Your task to perform on an android device: Go to internet settings Image 0: 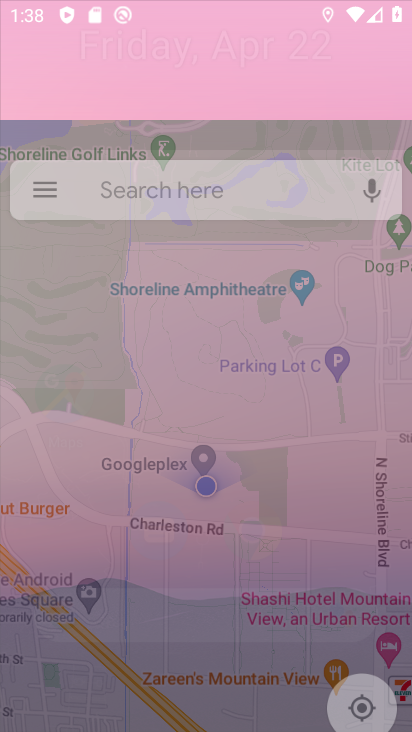
Step 0: drag from (228, 525) to (245, 156)
Your task to perform on an android device: Go to internet settings Image 1: 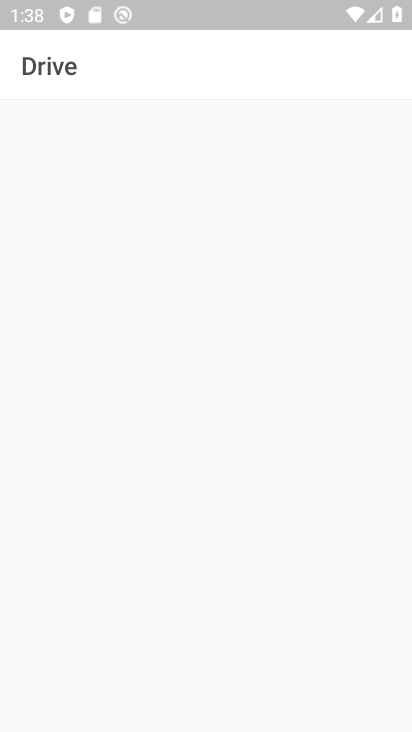
Step 1: press home button
Your task to perform on an android device: Go to internet settings Image 2: 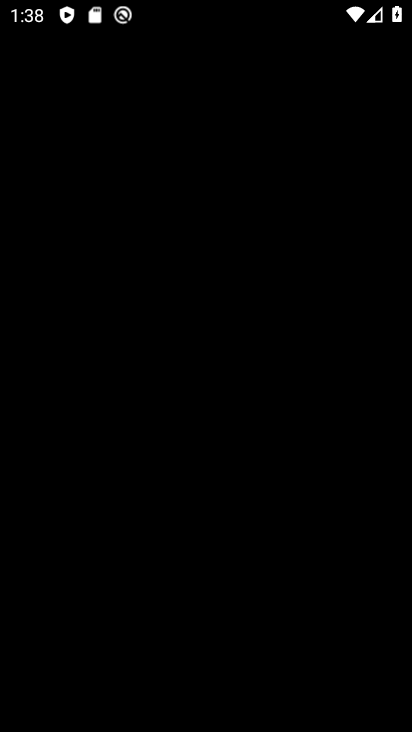
Step 2: press home button
Your task to perform on an android device: Go to internet settings Image 3: 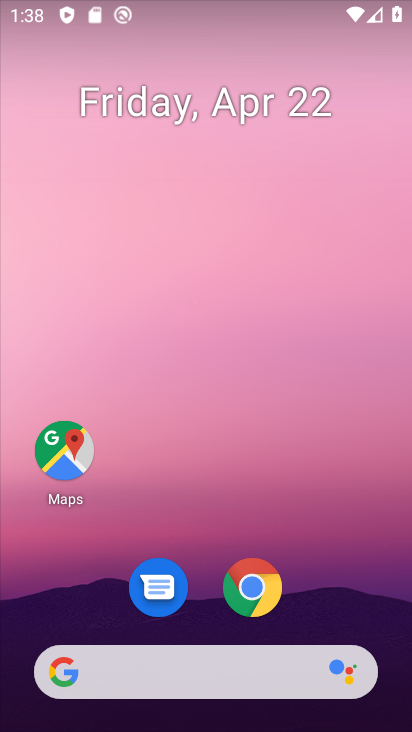
Step 3: drag from (222, 634) to (199, 198)
Your task to perform on an android device: Go to internet settings Image 4: 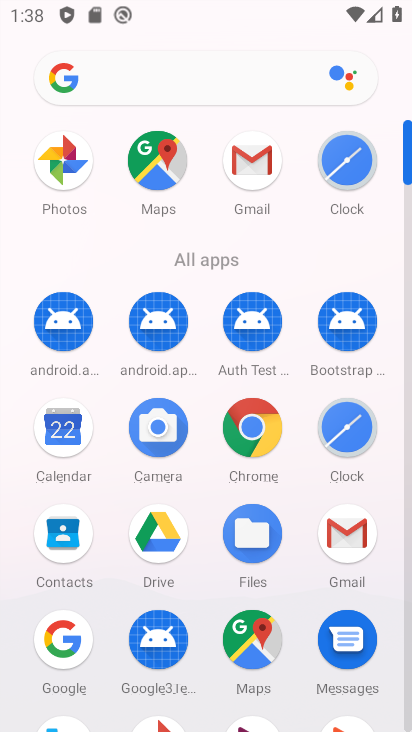
Step 4: drag from (205, 669) to (241, 298)
Your task to perform on an android device: Go to internet settings Image 5: 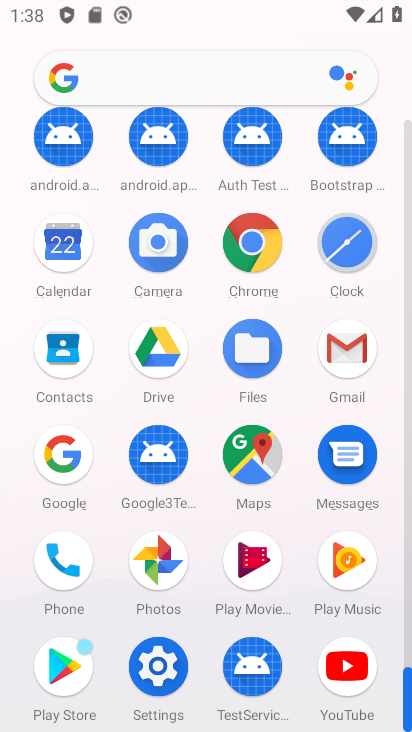
Step 5: click (162, 655)
Your task to perform on an android device: Go to internet settings Image 6: 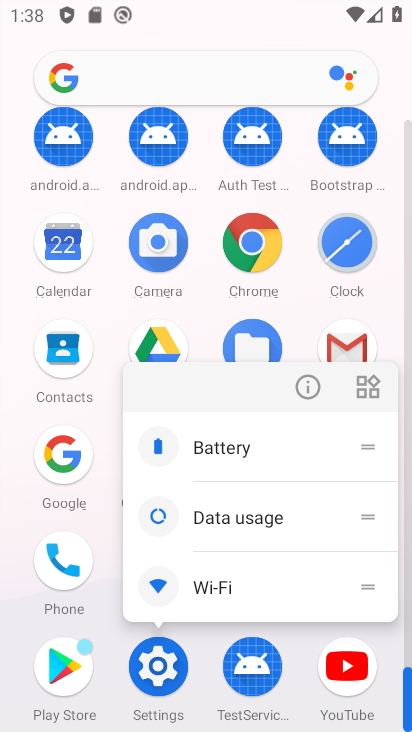
Step 6: click (307, 381)
Your task to perform on an android device: Go to internet settings Image 7: 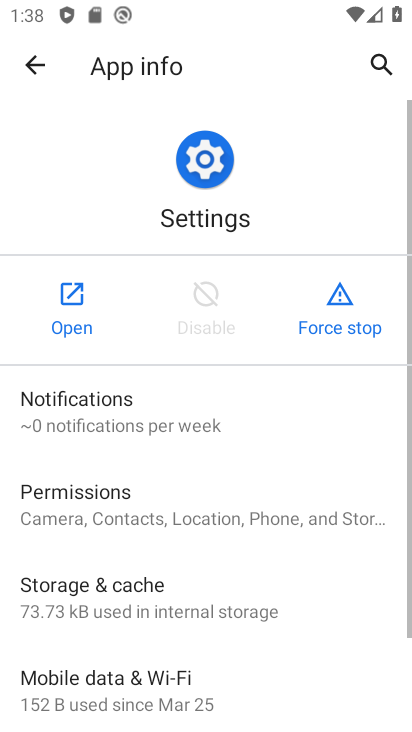
Step 7: click (69, 301)
Your task to perform on an android device: Go to internet settings Image 8: 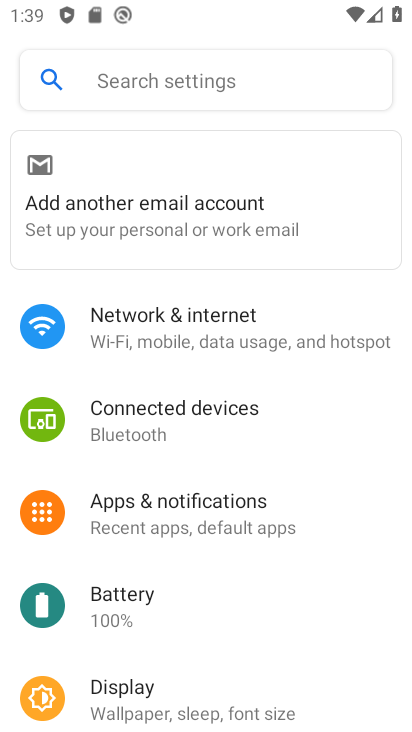
Step 8: drag from (196, 682) to (325, 149)
Your task to perform on an android device: Go to internet settings Image 9: 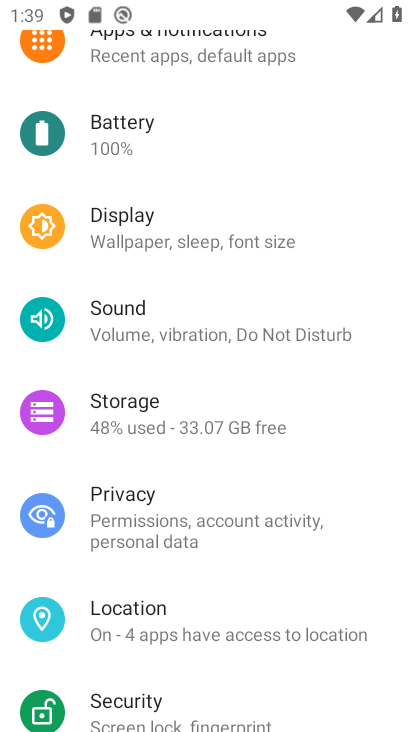
Step 9: drag from (224, 642) to (320, 211)
Your task to perform on an android device: Go to internet settings Image 10: 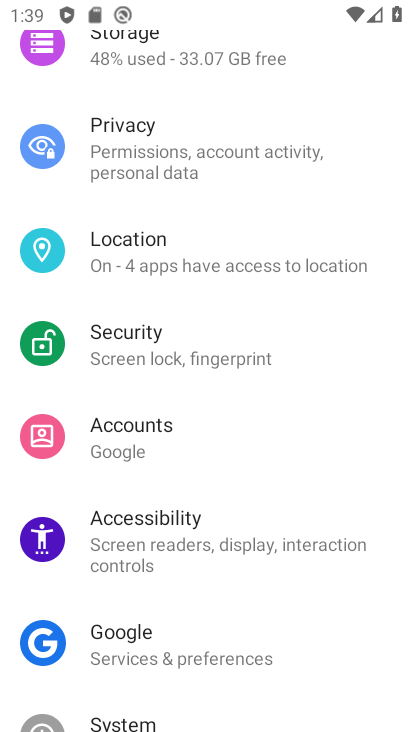
Step 10: drag from (189, 571) to (189, 228)
Your task to perform on an android device: Go to internet settings Image 11: 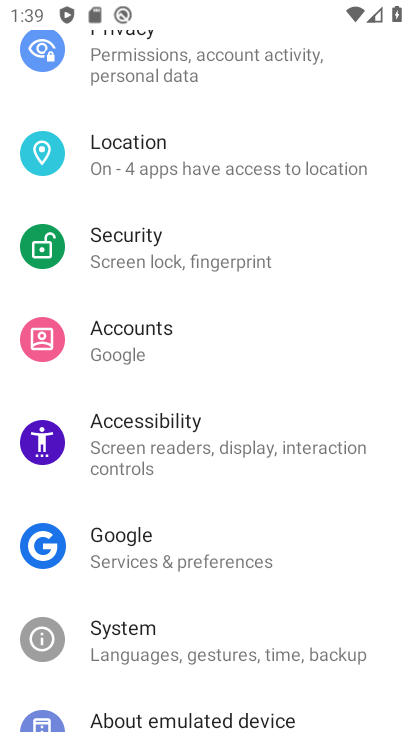
Step 11: drag from (267, 218) to (336, 723)
Your task to perform on an android device: Go to internet settings Image 12: 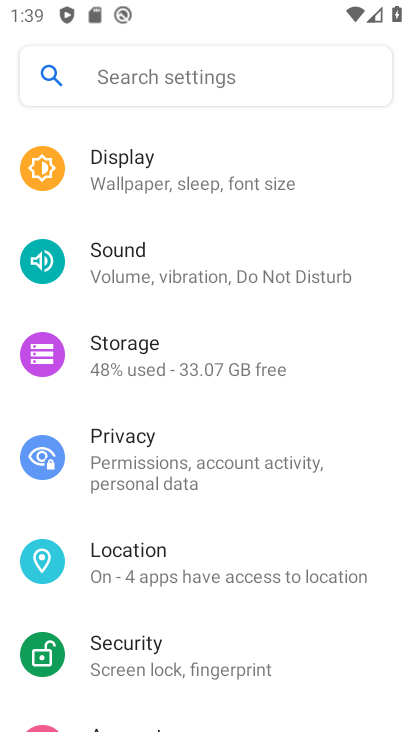
Step 12: drag from (314, 697) to (357, 722)
Your task to perform on an android device: Go to internet settings Image 13: 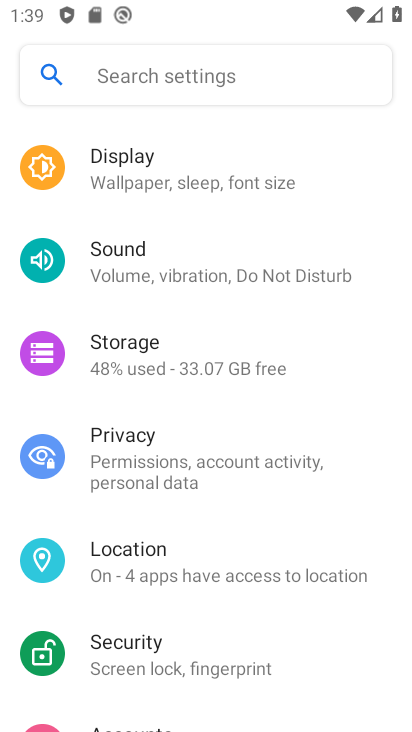
Step 13: drag from (207, 204) to (285, 638)
Your task to perform on an android device: Go to internet settings Image 14: 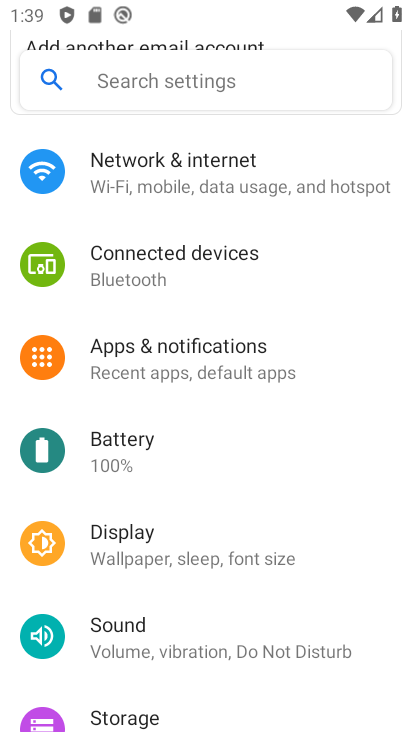
Step 14: click (168, 183)
Your task to perform on an android device: Go to internet settings Image 15: 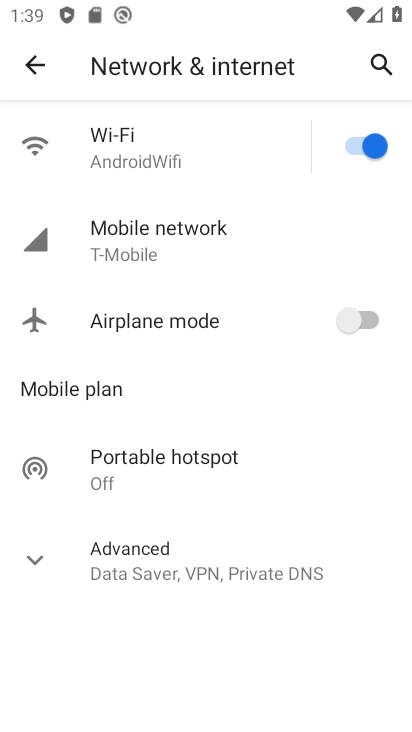
Step 15: task complete